Your task to perform on an android device: open sync settings in chrome Image 0: 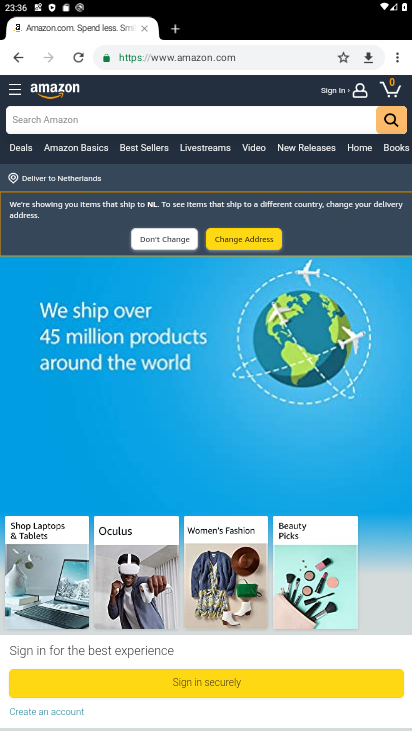
Step 0: click (398, 60)
Your task to perform on an android device: open sync settings in chrome Image 1: 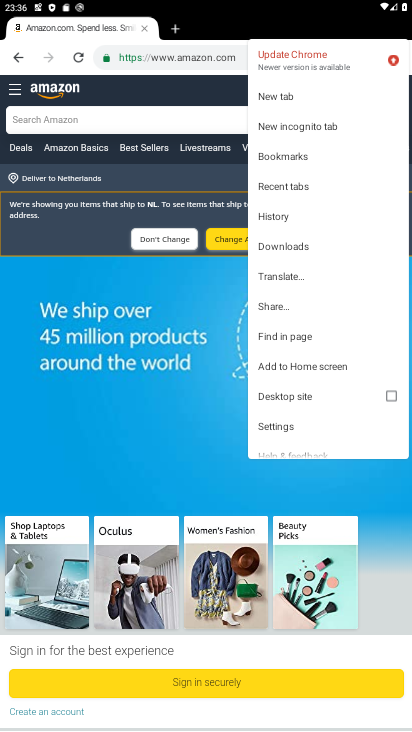
Step 1: click (313, 421)
Your task to perform on an android device: open sync settings in chrome Image 2: 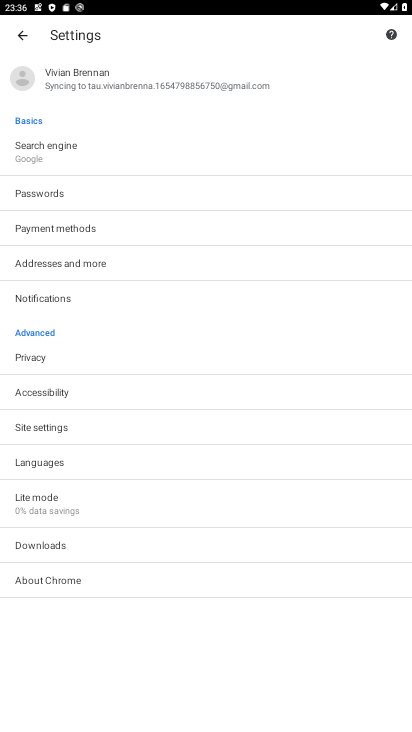
Step 2: click (29, 40)
Your task to perform on an android device: open sync settings in chrome Image 3: 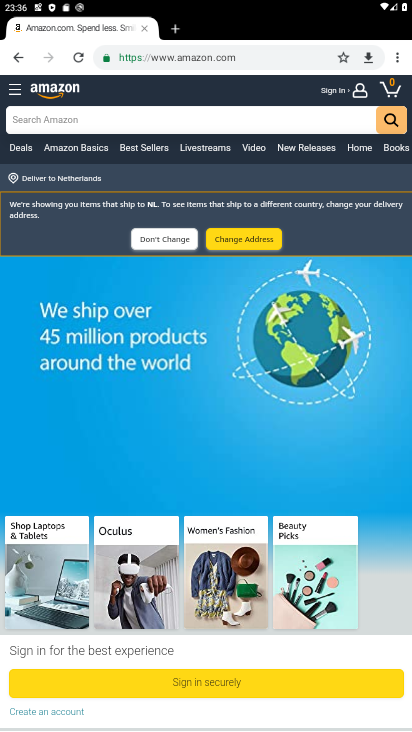
Step 3: click (406, 47)
Your task to perform on an android device: open sync settings in chrome Image 4: 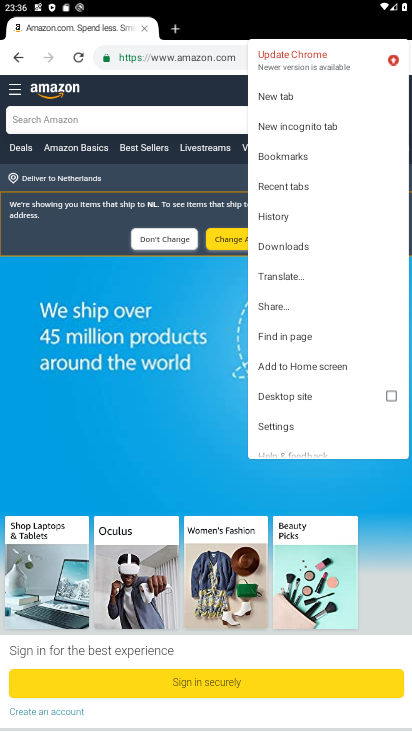
Step 4: click (287, 423)
Your task to perform on an android device: open sync settings in chrome Image 5: 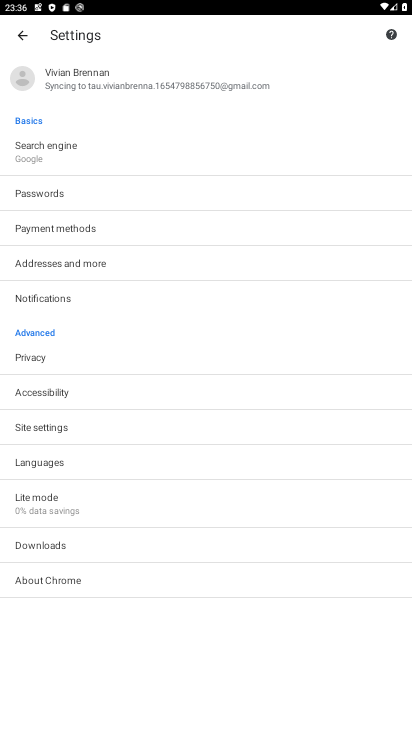
Step 5: click (315, 89)
Your task to perform on an android device: open sync settings in chrome Image 6: 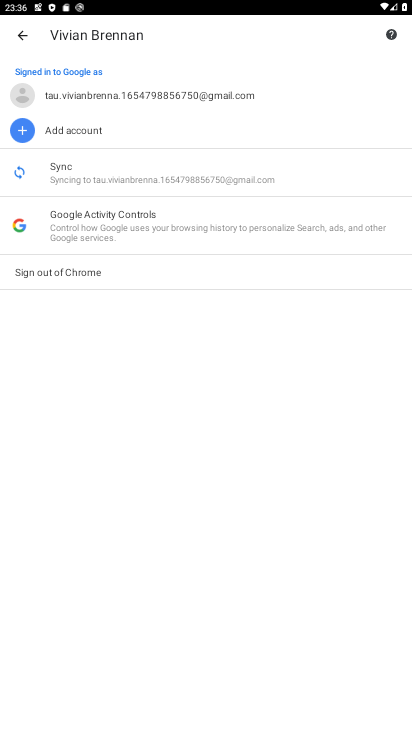
Step 6: click (213, 171)
Your task to perform on an android device: open sync settings in chrome Image 7: 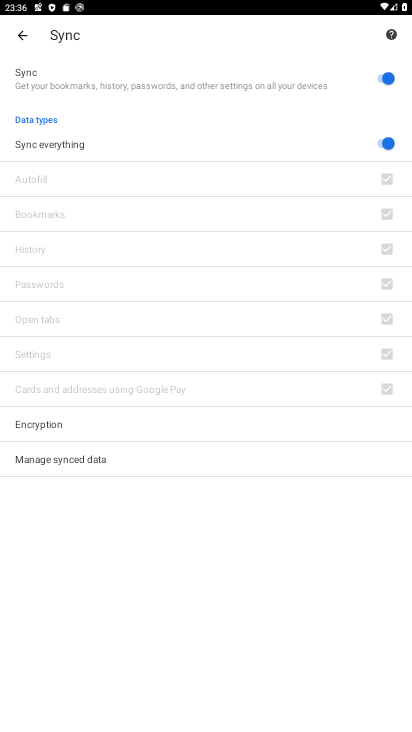
Step 7: task complete